Your task to perform on an android device: refresh tabs in the chrome app Image 0: 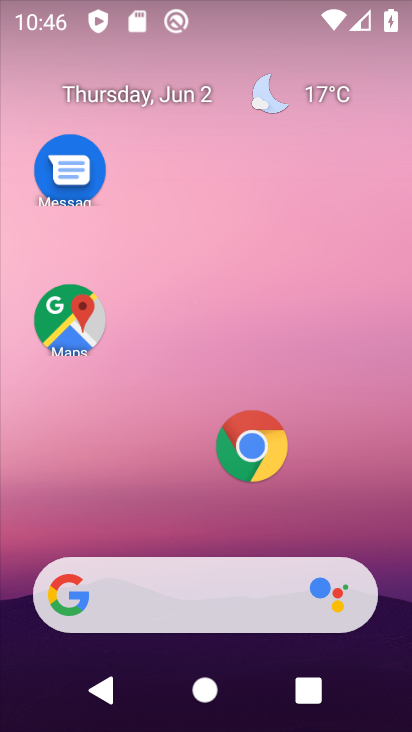
Step 0: press home button
Your task to perform on an android device: refresh tabs in the chrome app Image 1: 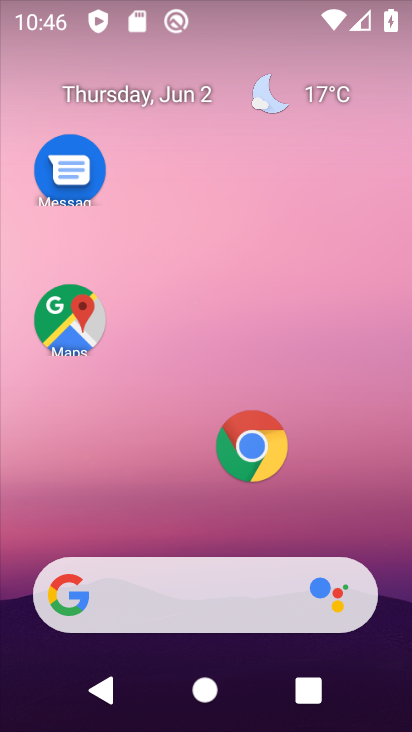
Step 1: click (254, 487)
Your task to perform on an android device: refresh tabs in the chrome app Image 2: 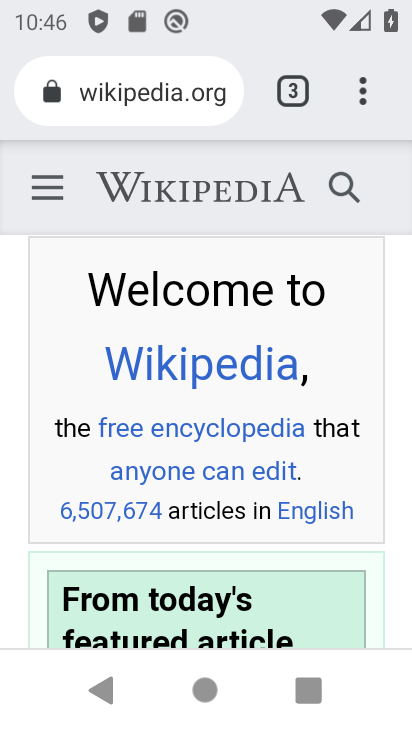
Step 2: task complete